Your task to perform on an android device: What is the news today? Image 0: 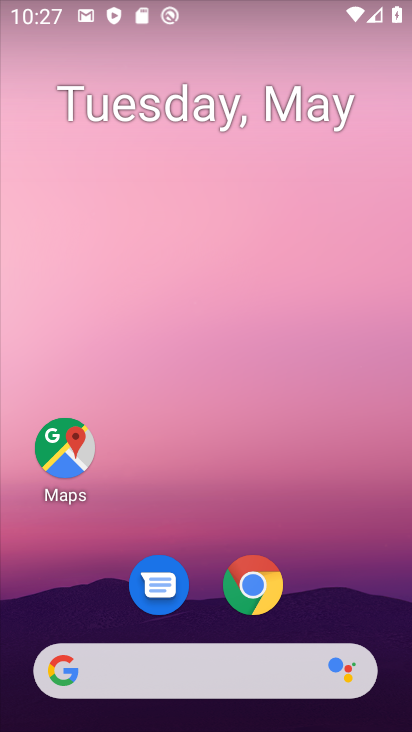
Step 0: click (234, 676)
Your task to perform on an android device: What is the news today? Image 1: 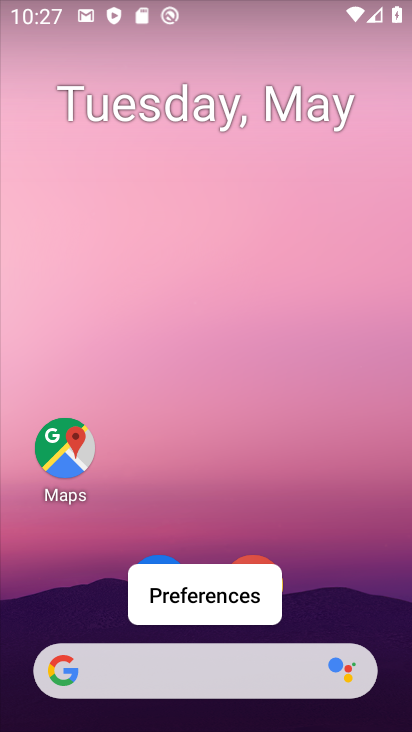
Step 1: click (210, 676)
Your task to perform on an android device: What is the news today? Image 2: 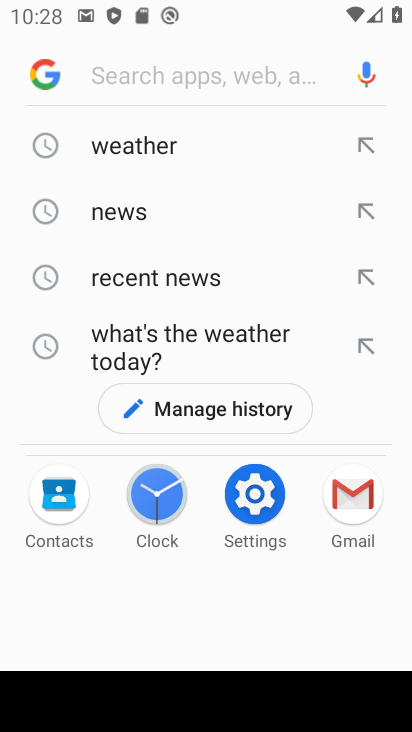
Step 2: click (114, 282)
Your task to perform on an android device: What is the news today? Image 3: 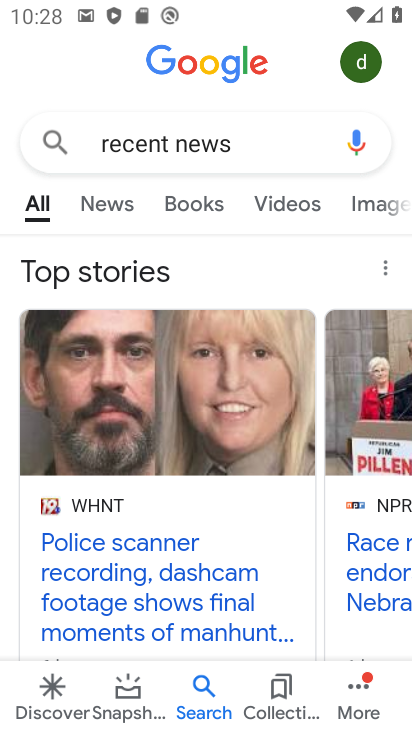
Step 3: click (117, 202)
Your task to perform on an android device: What is the news today? Image 4: 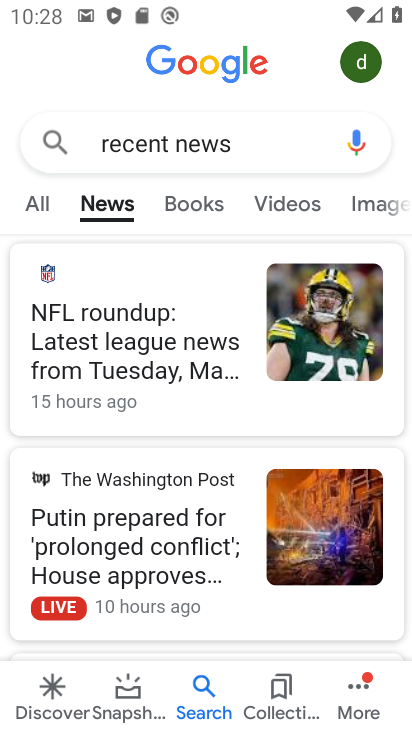
Step 4: task complete